Your task to perform on an android device: Search for Italian restaurants on Maps Image 0: 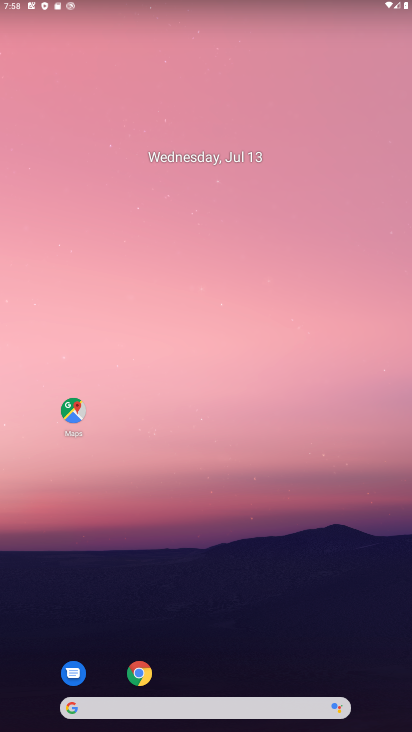
Step 0: drag from (209, 583) to (228, 116)
Your task to perform on an android device: Search for Italian restaurants on Maps Image 1: 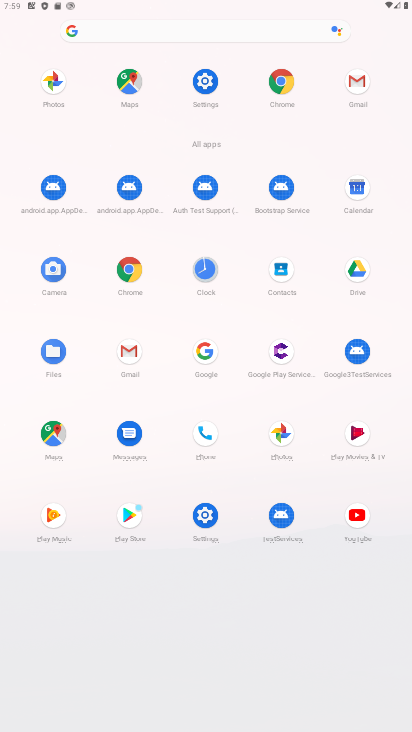
Step 1: click (136, 81)
Your task to perform on an android device: Search for Italian restaurants on Maps Image 2: 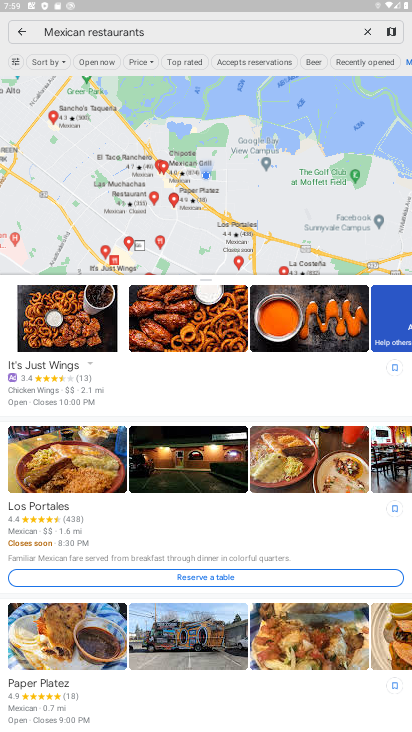
Step 2: click (204, 32)
Your task to perform on an android device: Search for Italian restaurants on Maps Image 3: 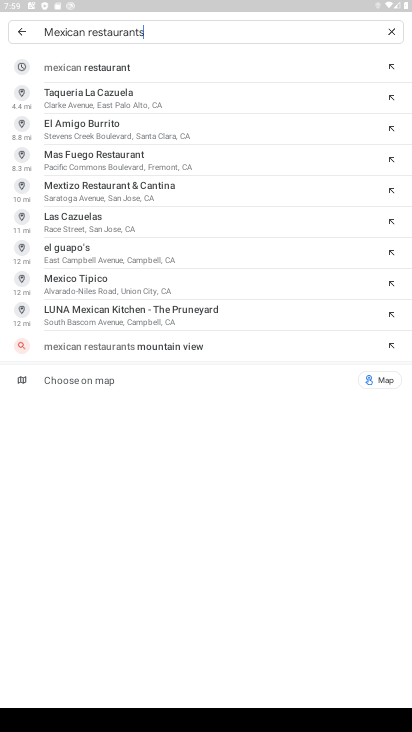
Step 3: click (394, 27)
Your task to perform on an android device: Search for Italian restaurants on Maps Image 4: 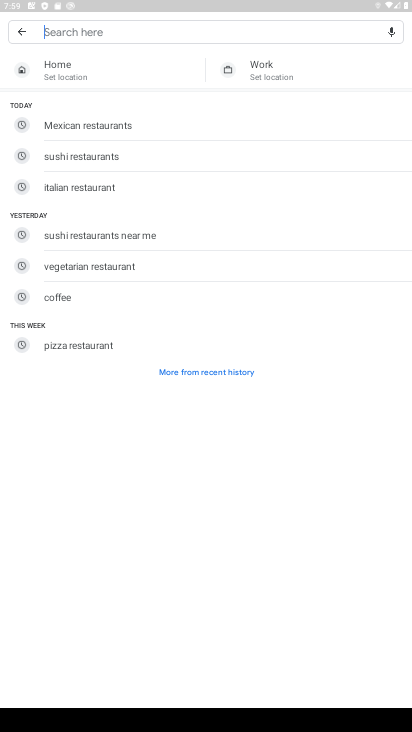
Step 4: type "Italian restaurants"
Your task to perform on an android device: Search for Italian restaurants on Maps Image 5: 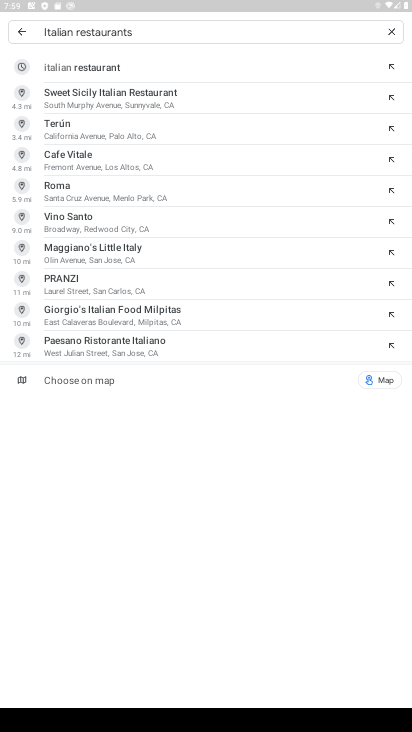
Step 5: press enter
Your task to perform on an android device: Search for Italian restaurants on Maps Image 6: 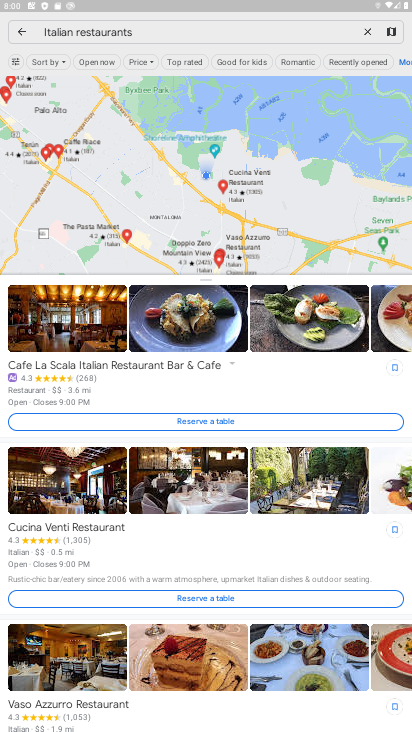
Step 6: task complete